Your task to perform on an android device: Clear the shopping cart on target. Add macbook pro to the cart on target Image 0: 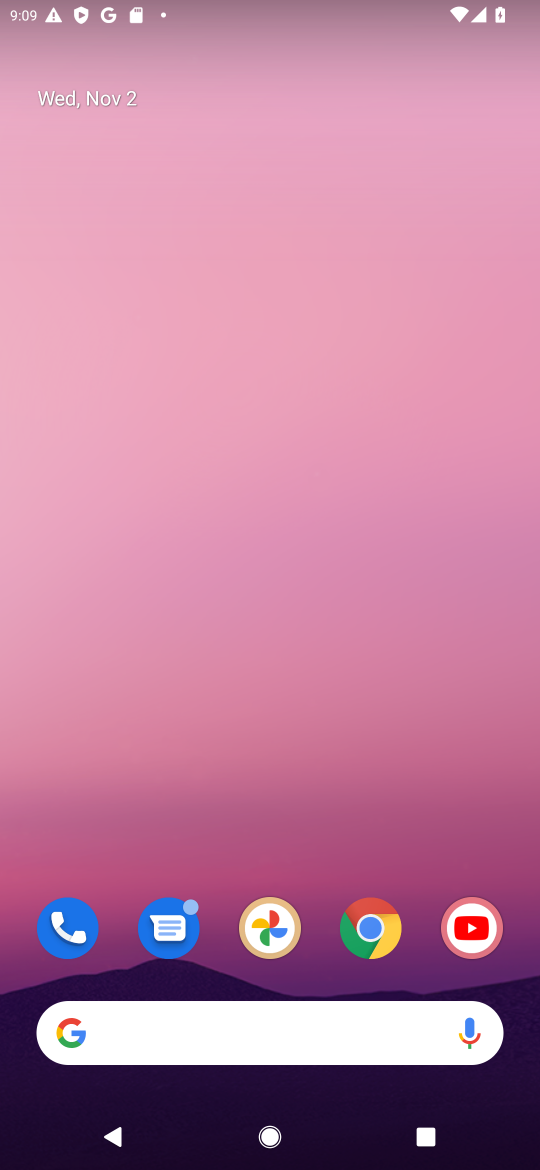
Step 0: click (389, 930)
Your task to perform on an android device: Clear the shopping cart on target. Add macbook pro to the cart on target Image 1: 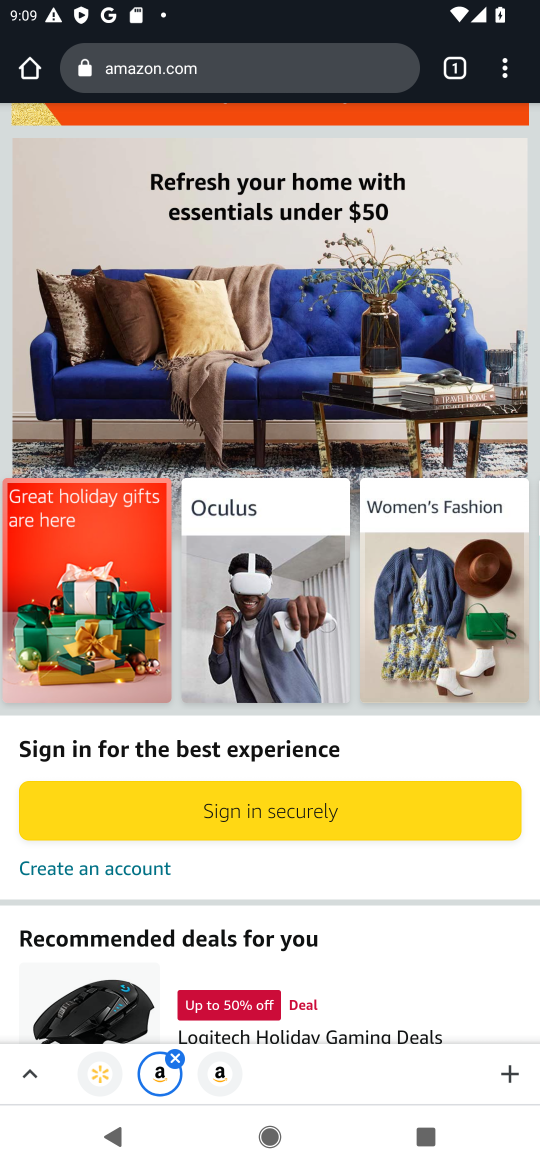
Step 1: click (179, 53)
Your task to perform on an android device: Clear the shopping cart on target. Add macbook pro to the cart on target Image 2: 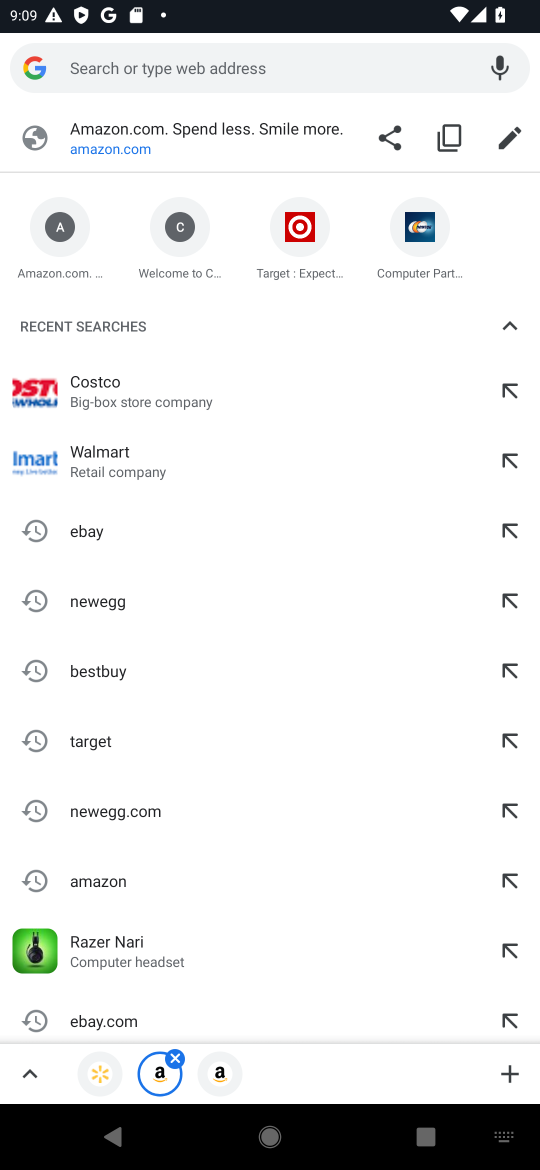
Step 2: type "amazon.com"
Your task to perform on an android device: Clear the shopping cart on target. Add macbook pro to the cart on target Image 3: 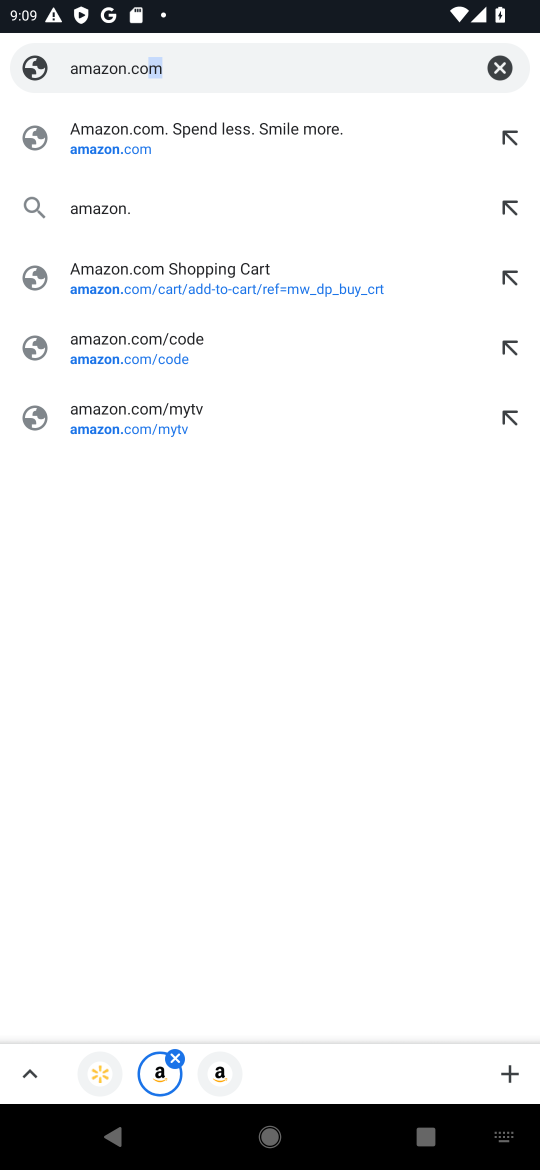
Step 3: type ""
Your task to perform on an android device: Clear the shopping cart on target. Add macbook pro to the cart on target Image 4: 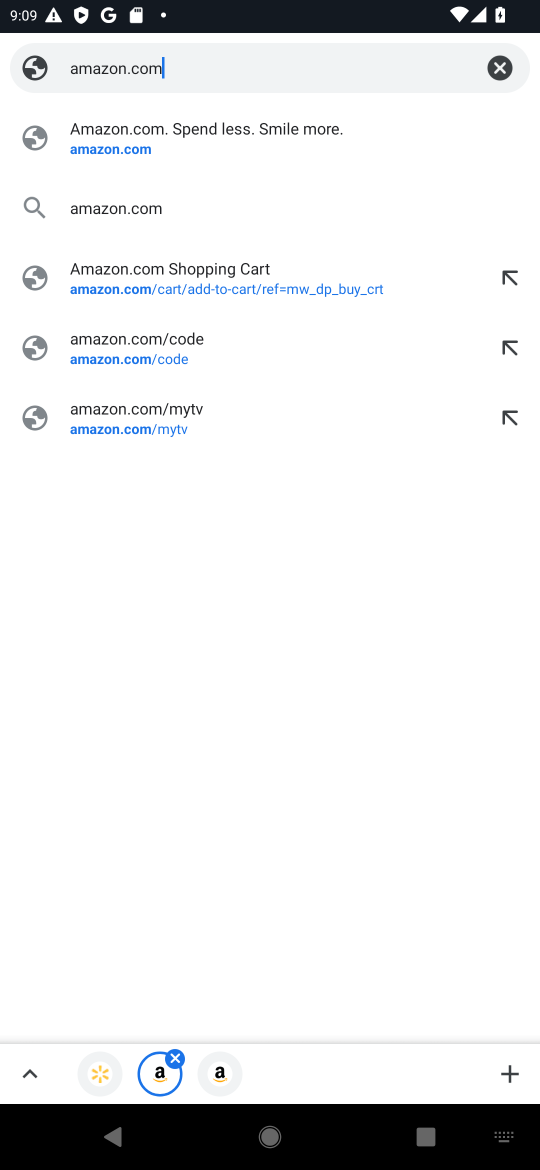
Step 4: click (357, 149)
Your task to perform on an android device: Clear the shopping cart on target. Add macbook pro to the cart on target Image 5: 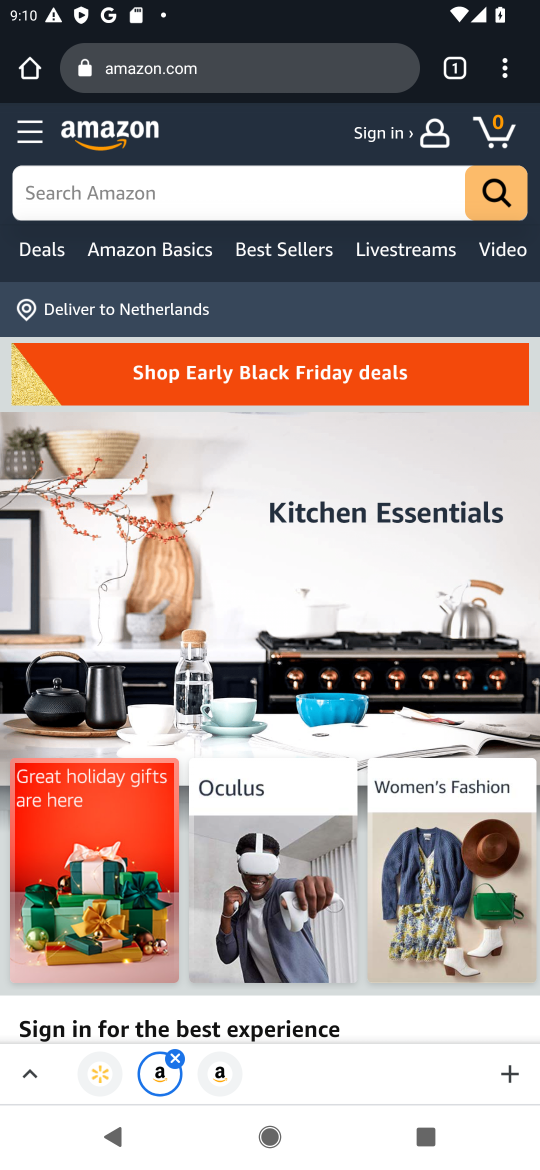
Step 5: click (297, 70)
Your task to perform on an android device: Clear the shopping cart on target. Add macbook pro to the cart on target Image 6: 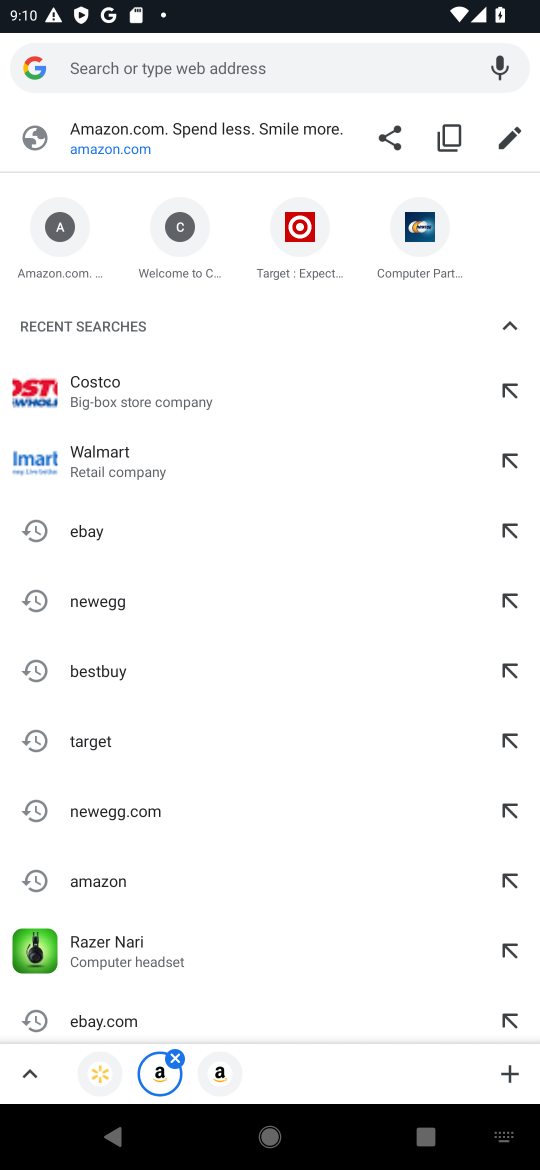
Step 6: type "target"
Your task to perform on an android device: Clear the shopping cart on target. Add macbook pro to the cart on target Image 7: 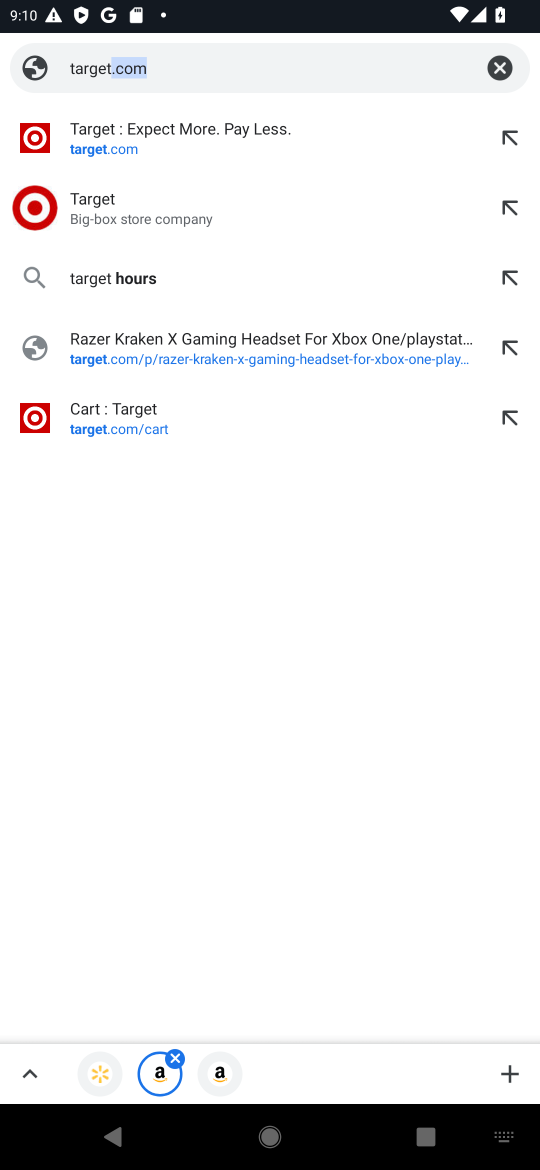
Step 7: click (113, 399)
Your task to perform on an android device: Clear the shopping cart on target. Add macbook pro to the cart on target Image 8: 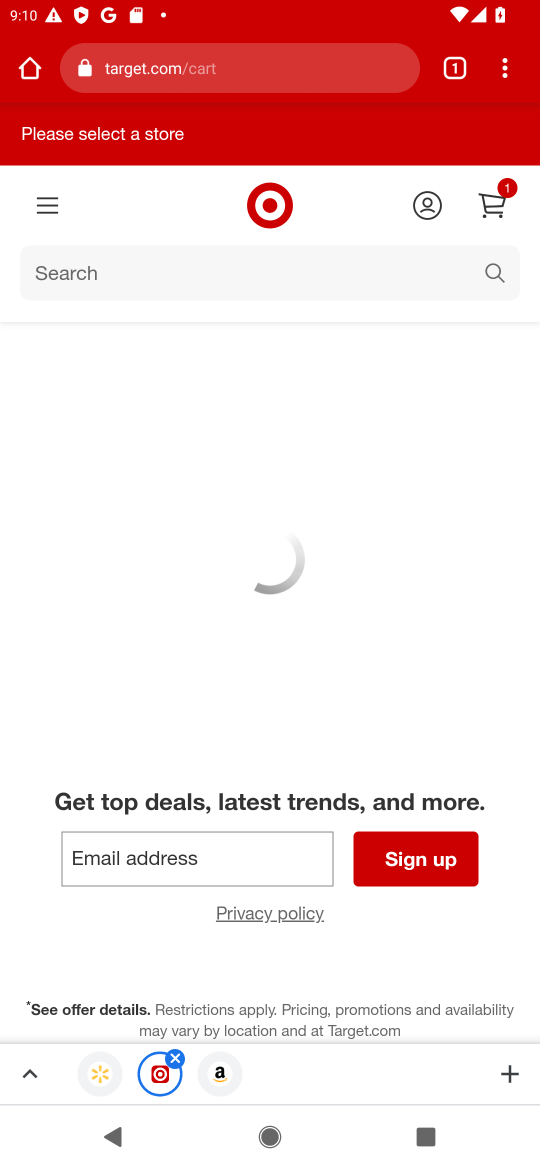
Step 8: click (271, 206)
Your task to perform on an android device: Clear the shopping cart on target. Add macbook pro to the cart on target Image 9: 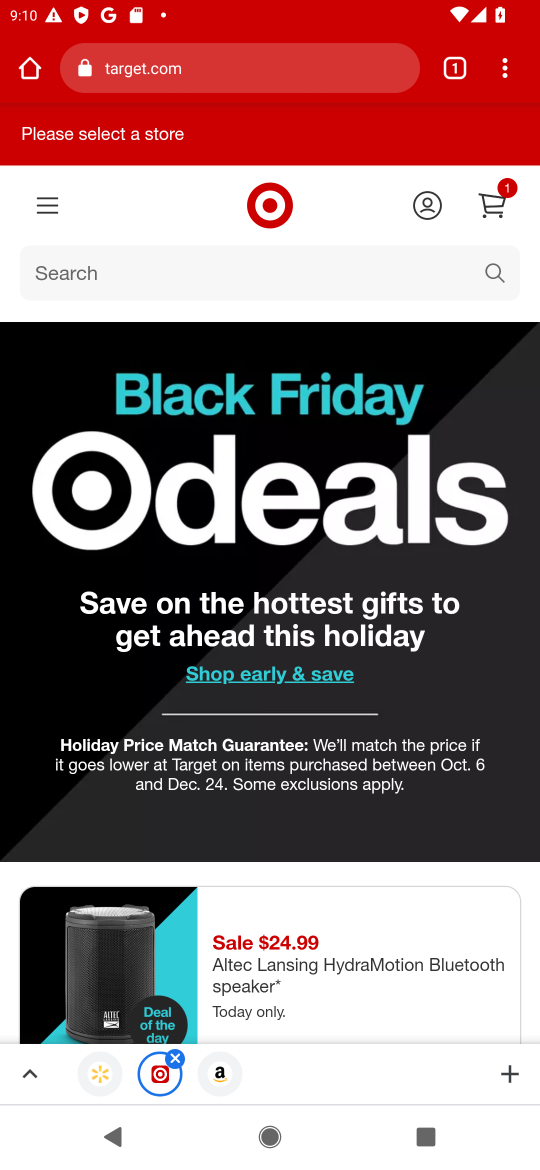
Step 9: click (488, 209)
Your task to perform on an android device: Clear the shopping cart on target. Add macbook pro to the cart on target Image 10: 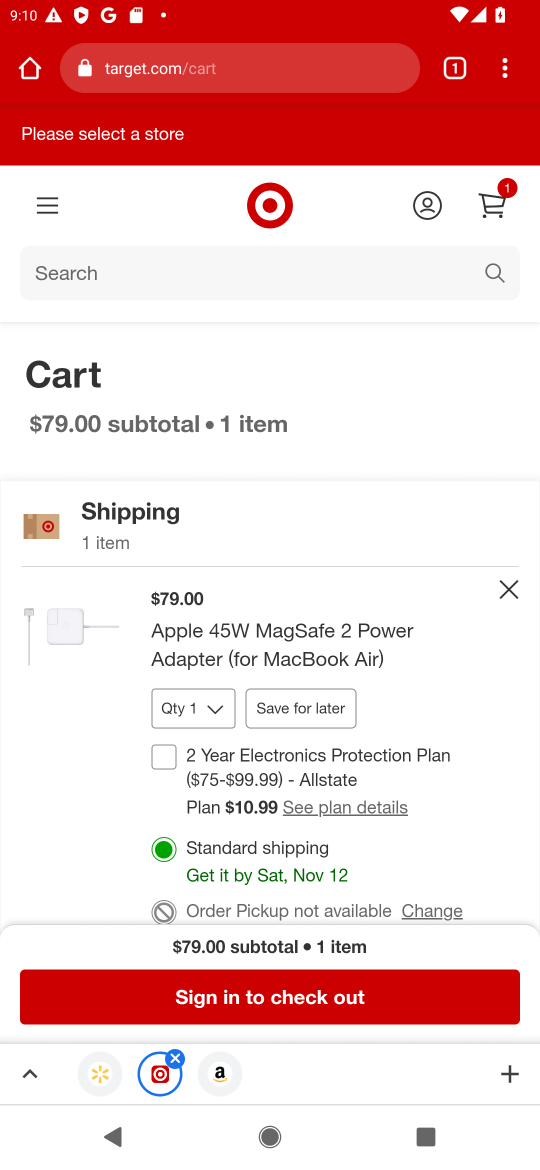
Step 10: click (513, 581)
Your task to perform on an android device: Clear the shopping cart on target. Add macbook pro to the cart on target Image 11: 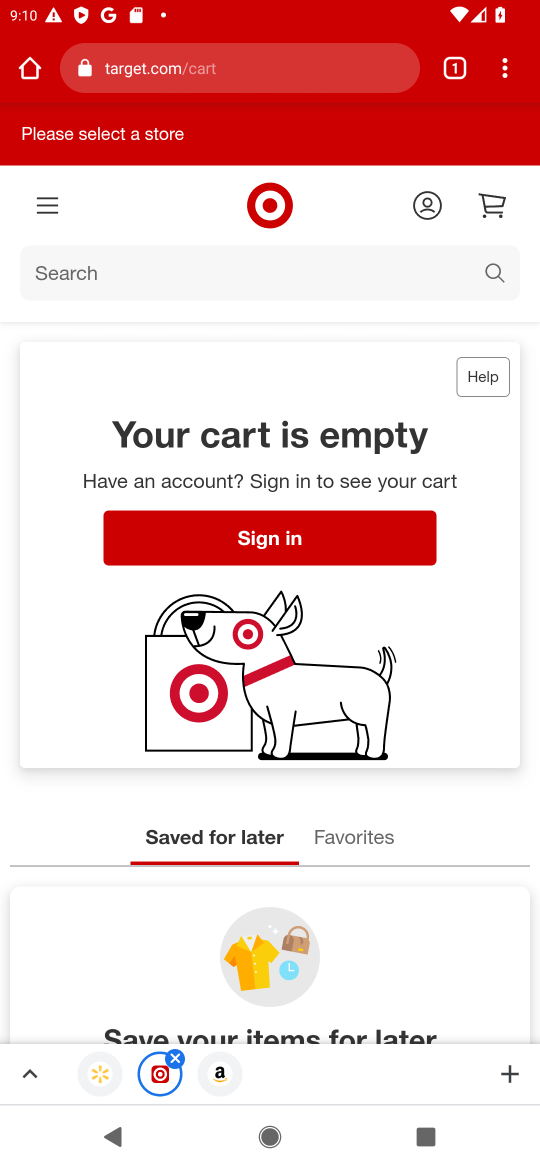
Step 11: click (219, 271)
Your task to perform on an android device: Clear the shopping cart on target. Add macbook pro to the cart on target Image 12: 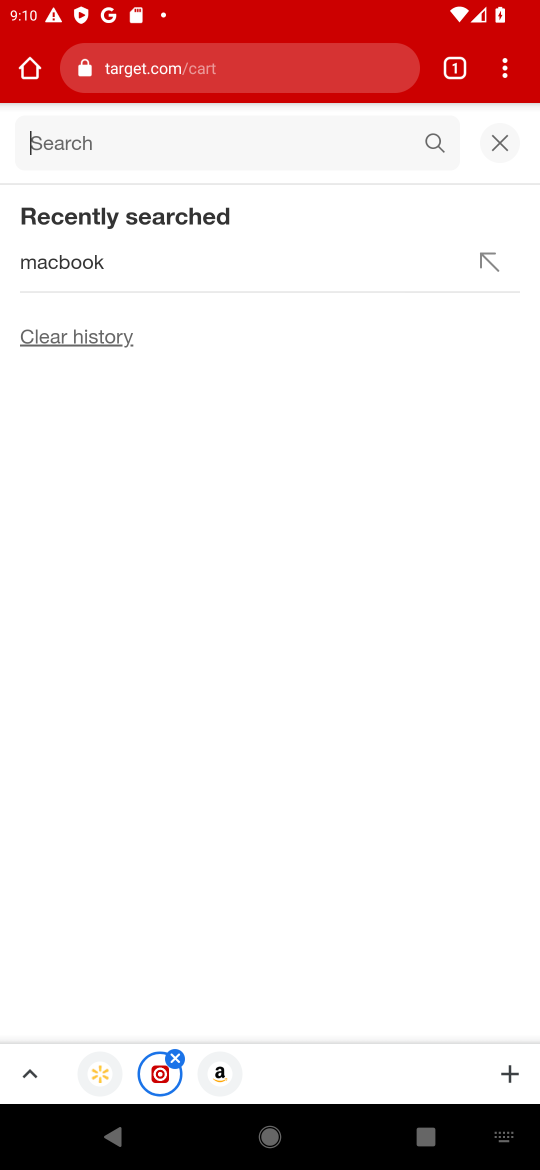
Step 12: type "macbook pro"
Your task to perform on an android device: Clear the shopping cart on target. Add macbook pro to the cart on target Image 13: 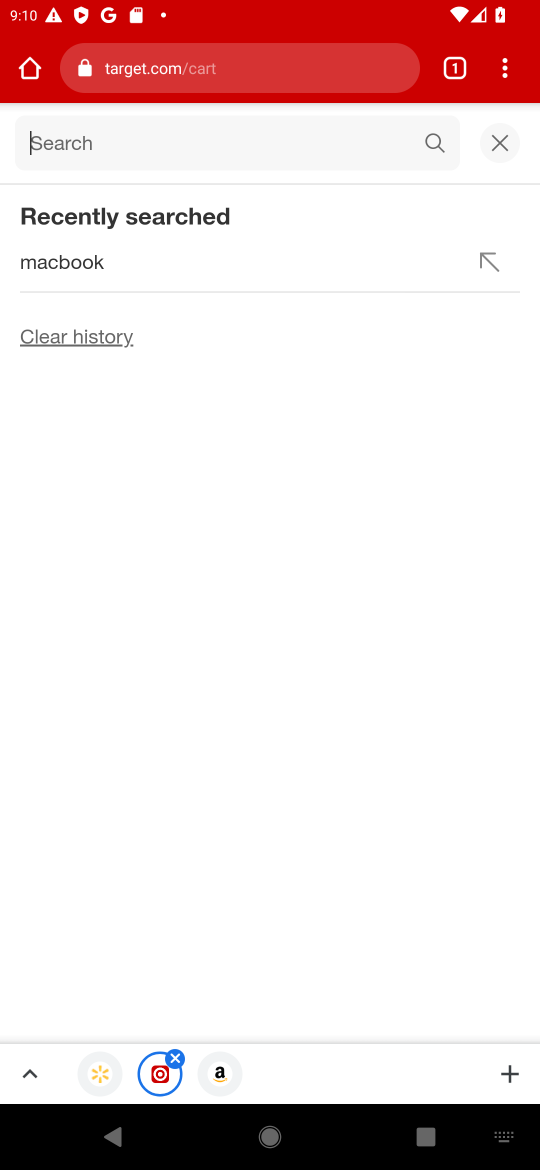
Step 13: type ""
Your task to perform on an android device: Clear the shopping cart on target. Add macbook pro to the cart on target Image 14: 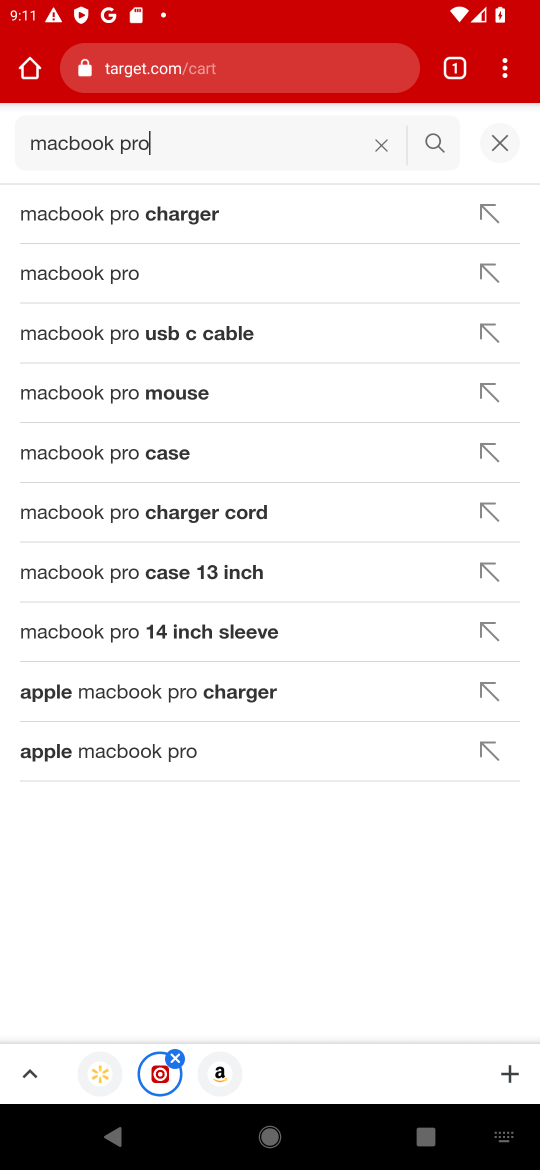
Step 14: click (99, 278)
Your task to perform on an android device: Clear the shopping cart on target. Add macbook pro to the cart on target Image 15: 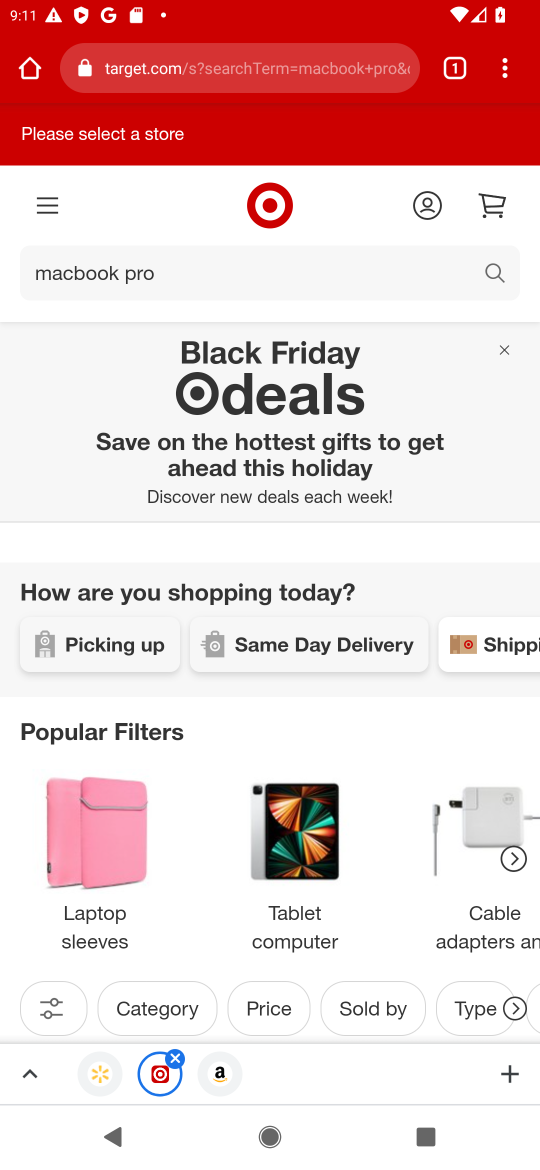
Step 15: task complete